Your task to perform on an android device: install app "AliExpress" Image 0: 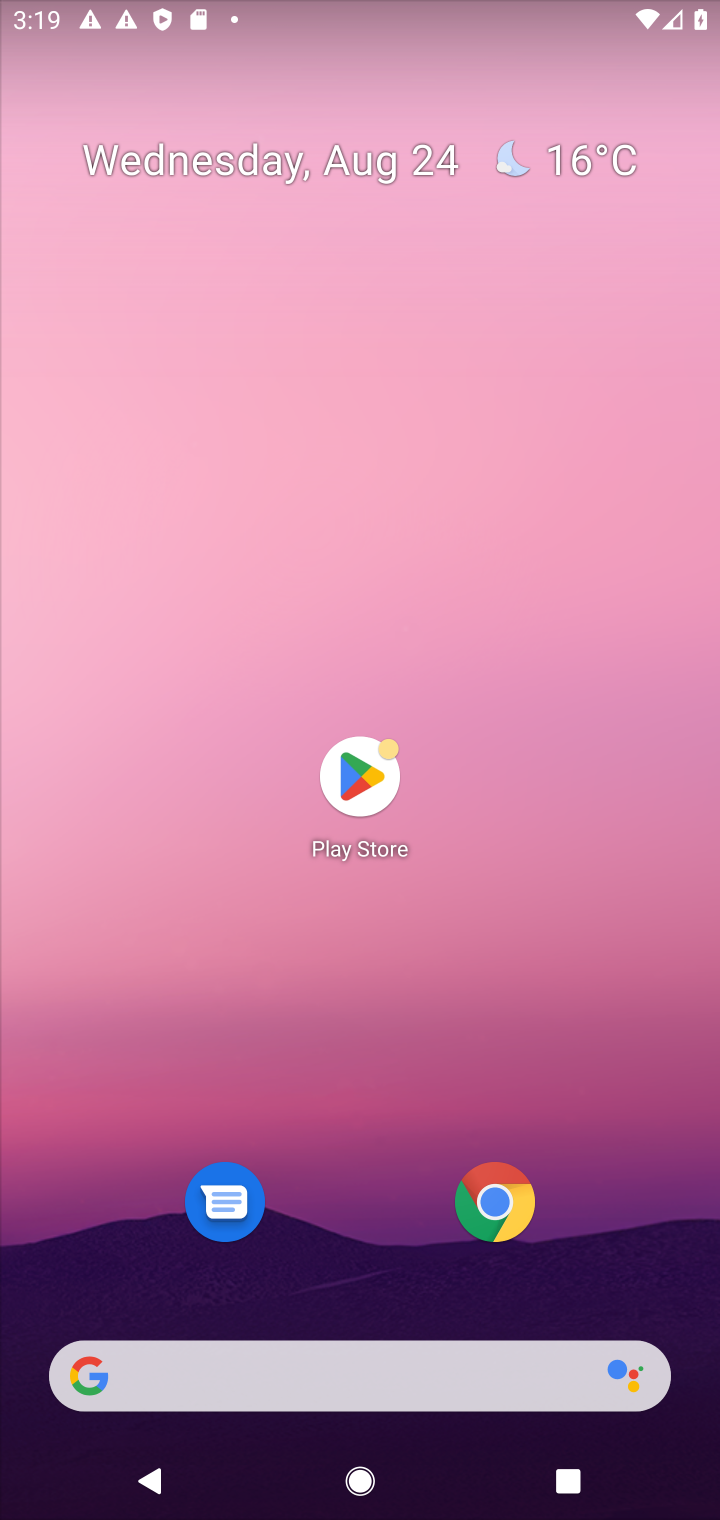
Step 0: click (363, 772)
Your task to perform on an android device: install app "AliExpress" Image 1: 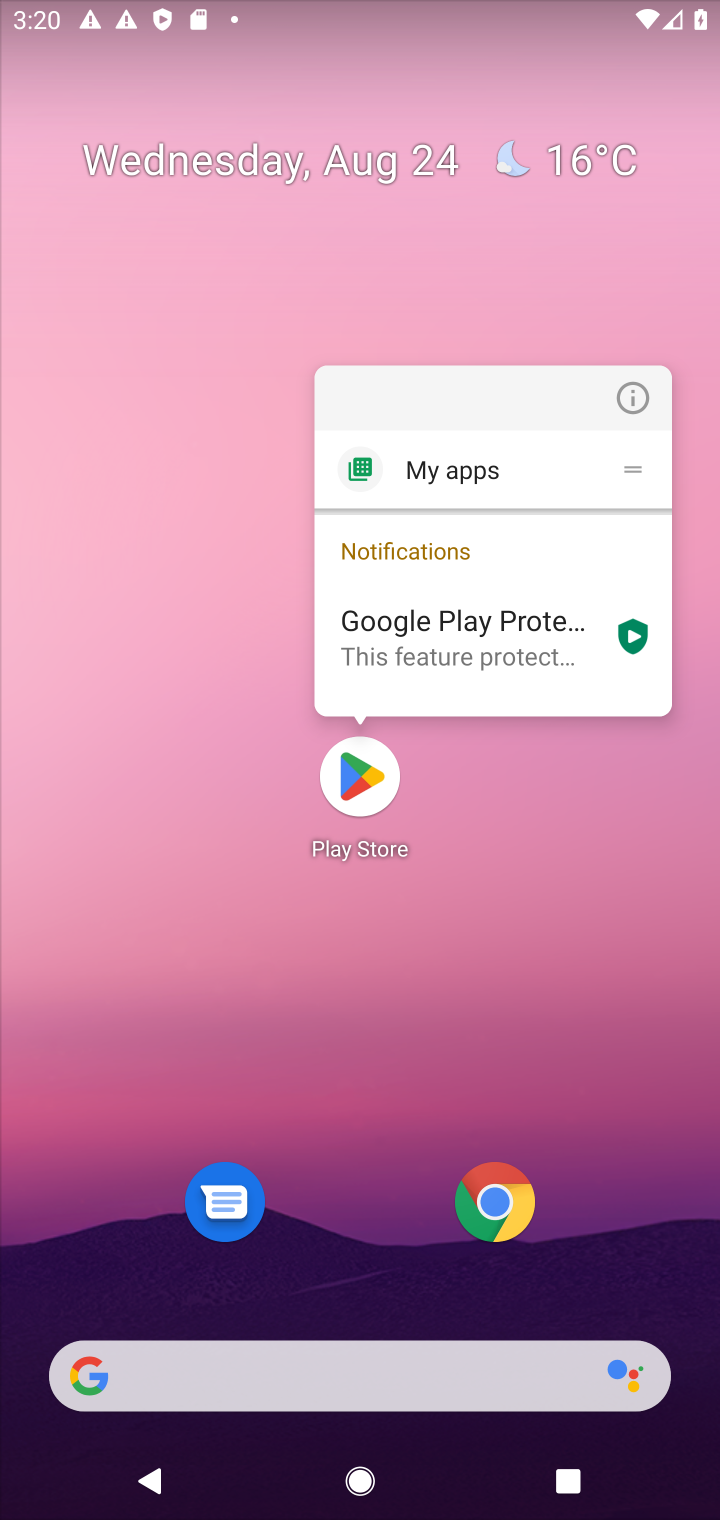
Step 1: click (362, 766)
Your task to perform on an android device: install app "AliExpress" Image 2: 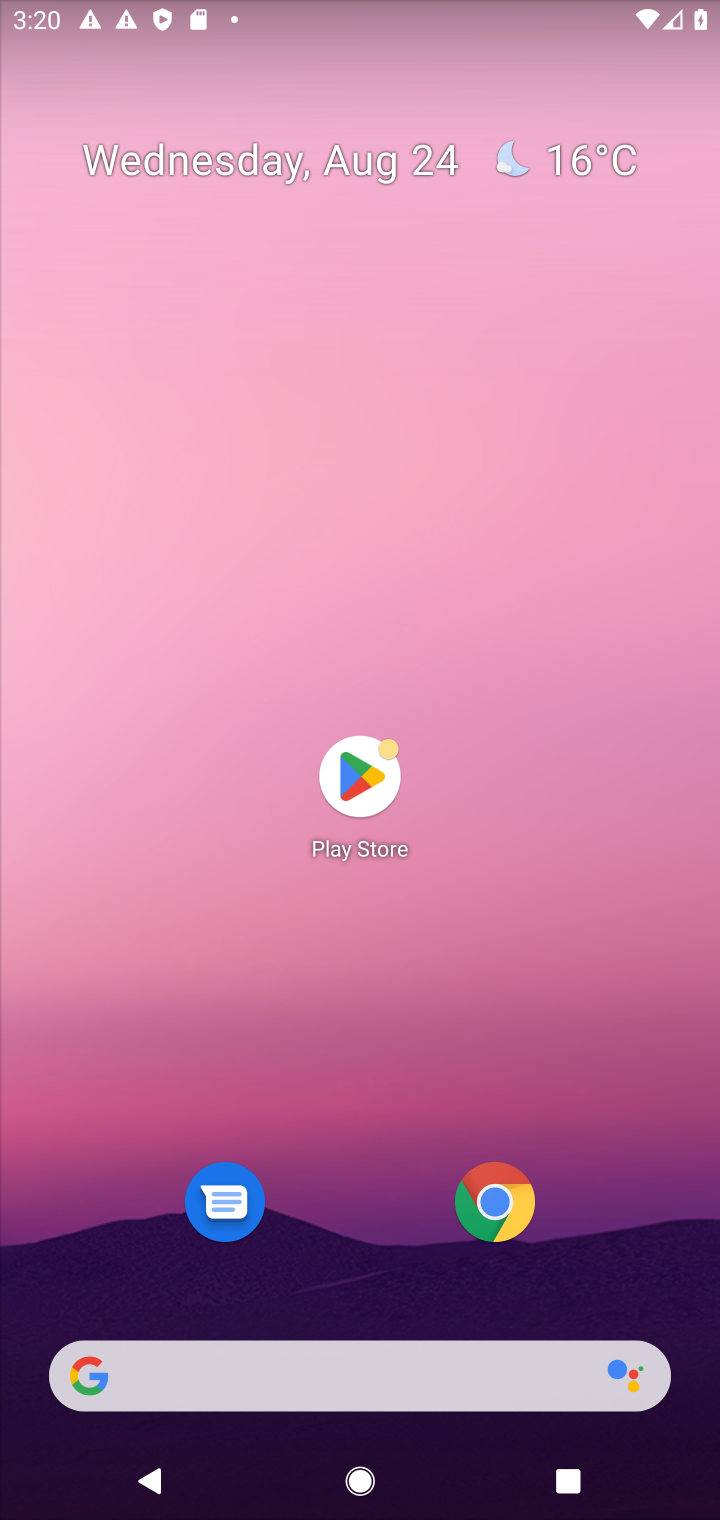
Step 2: click (362, 769)
Your task to perform on an android device: install app "AliExpress" Image 3: 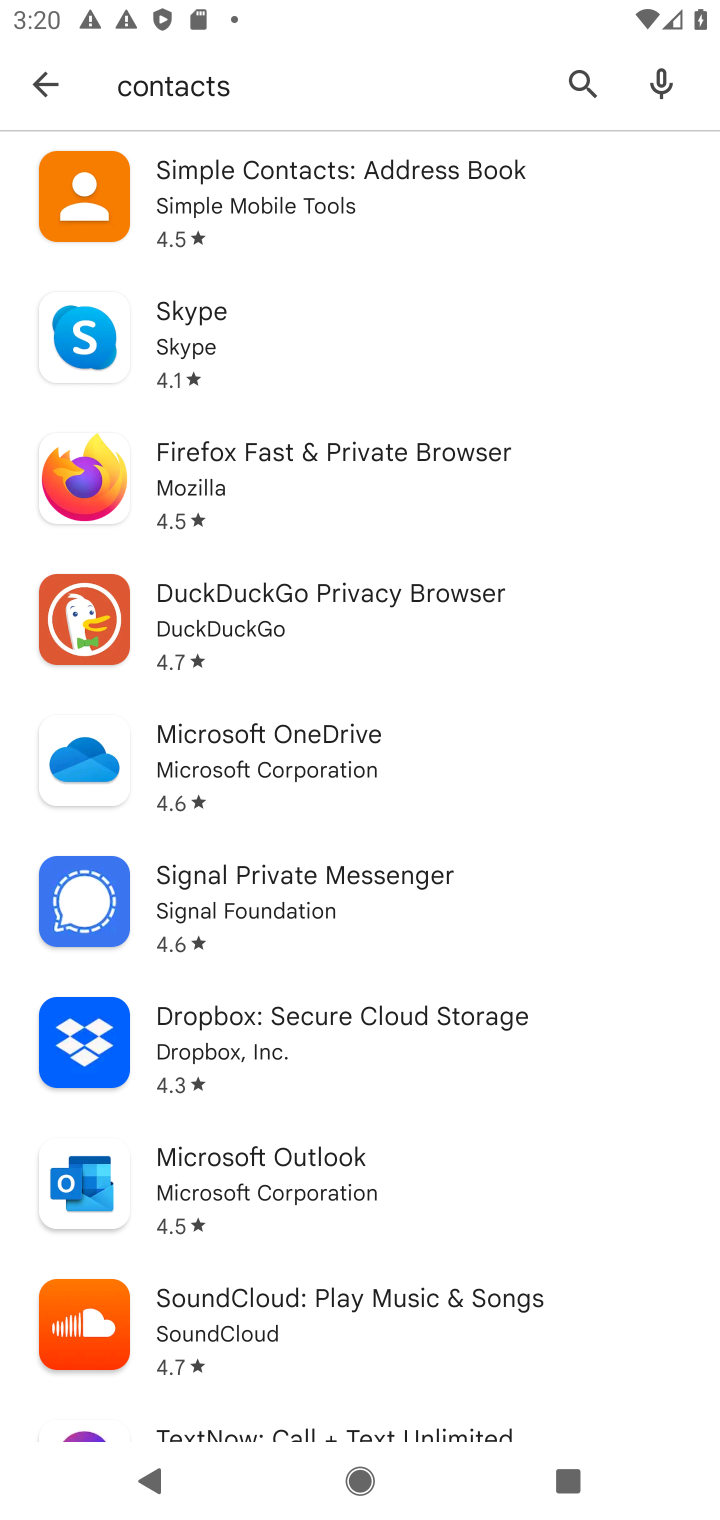
Step 3: click (585, 77)
Your task to perform on an android device: install app "AliExpress" Image 4: 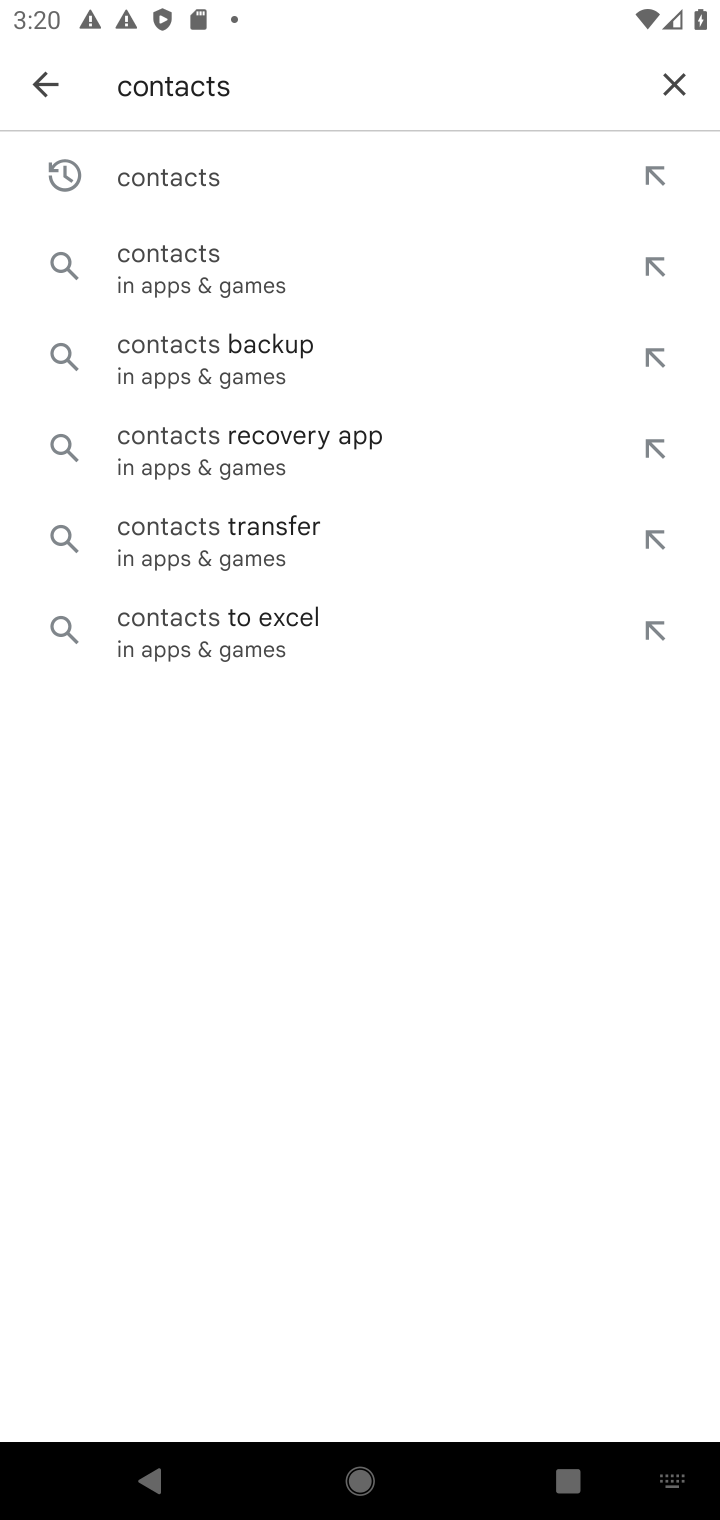
Step 4: click (664, 79)
Your task to perform on an android device: install app "AliExpress" Image 5: 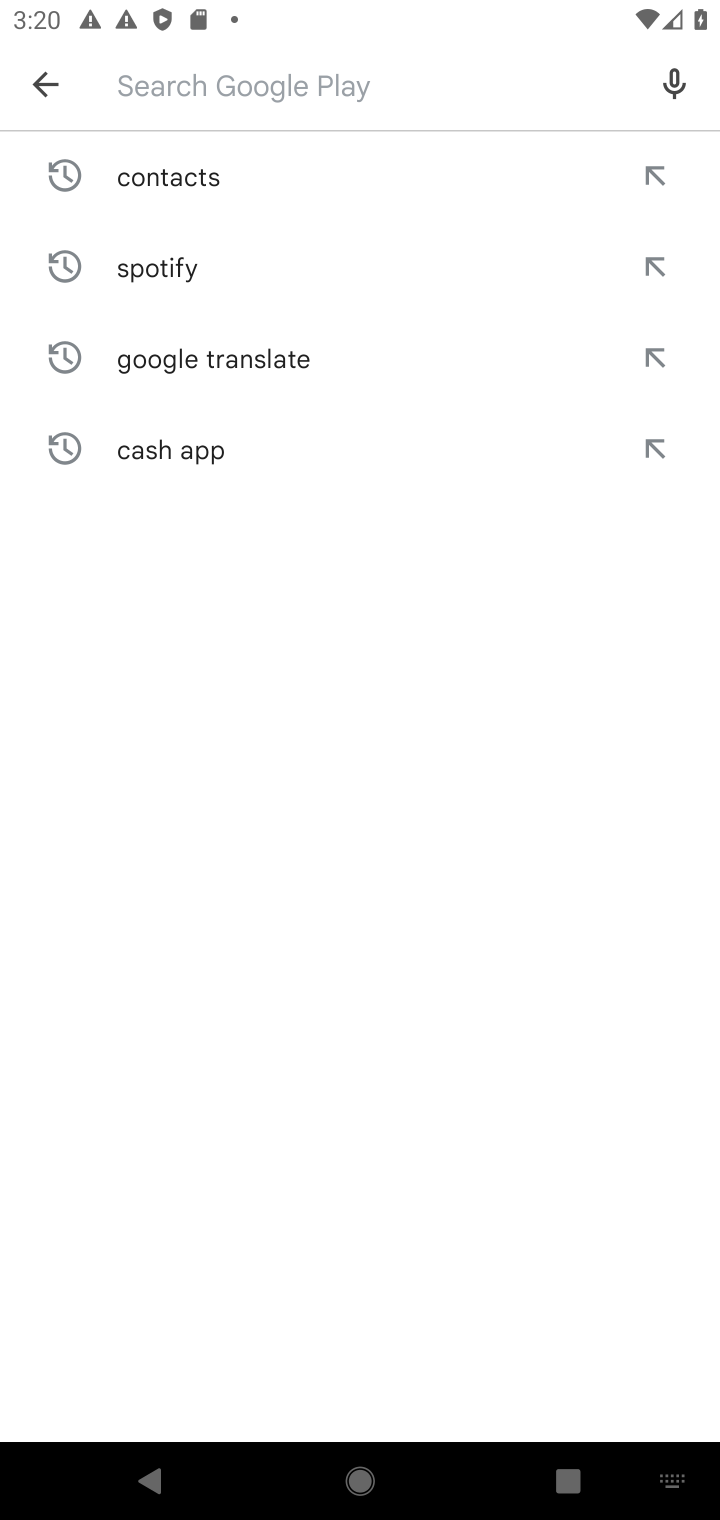
Step 5: type "AliExpress"
Your task to perform on an android device: install app "AliExpress" Image 6: 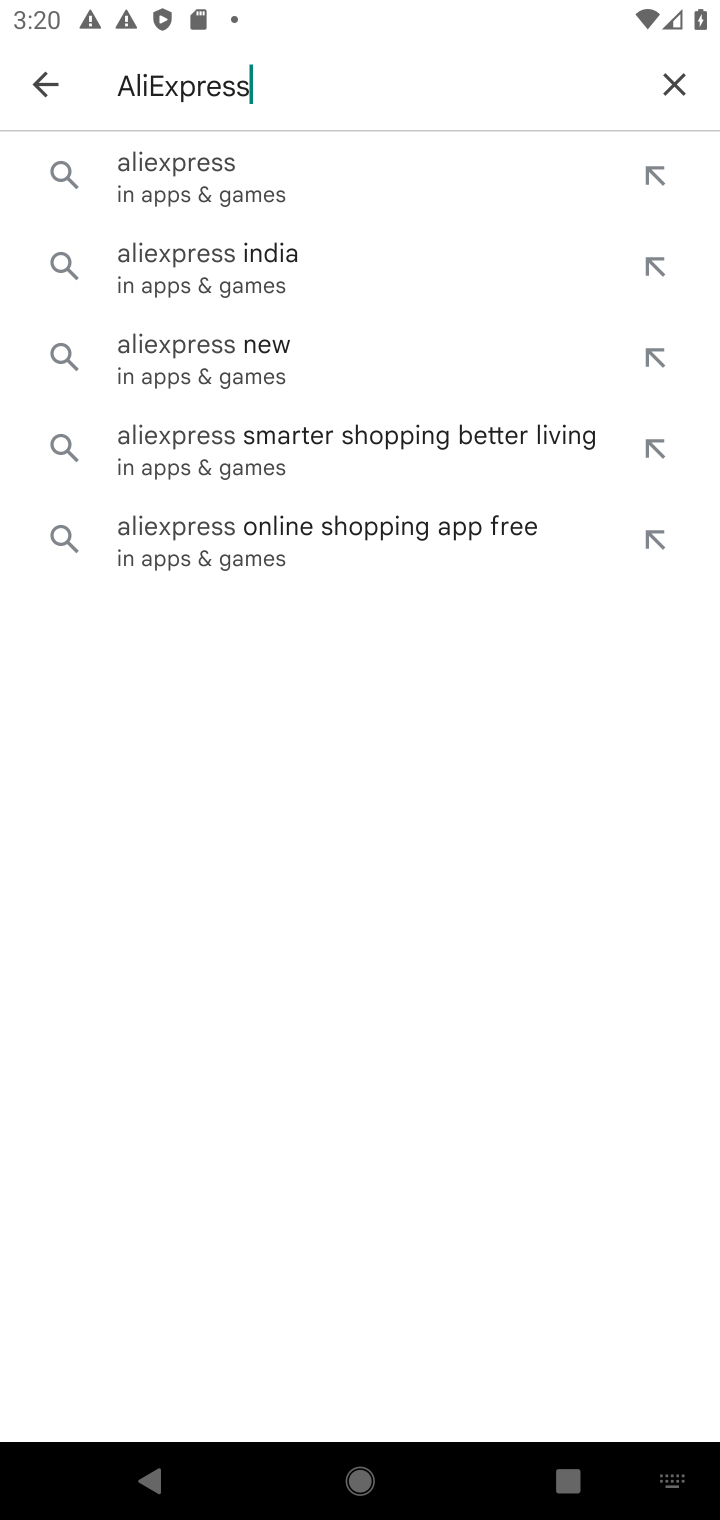
Step 6: click (198, 171)
Your task to perform on an android device: install app "AliExpress" Image 7: 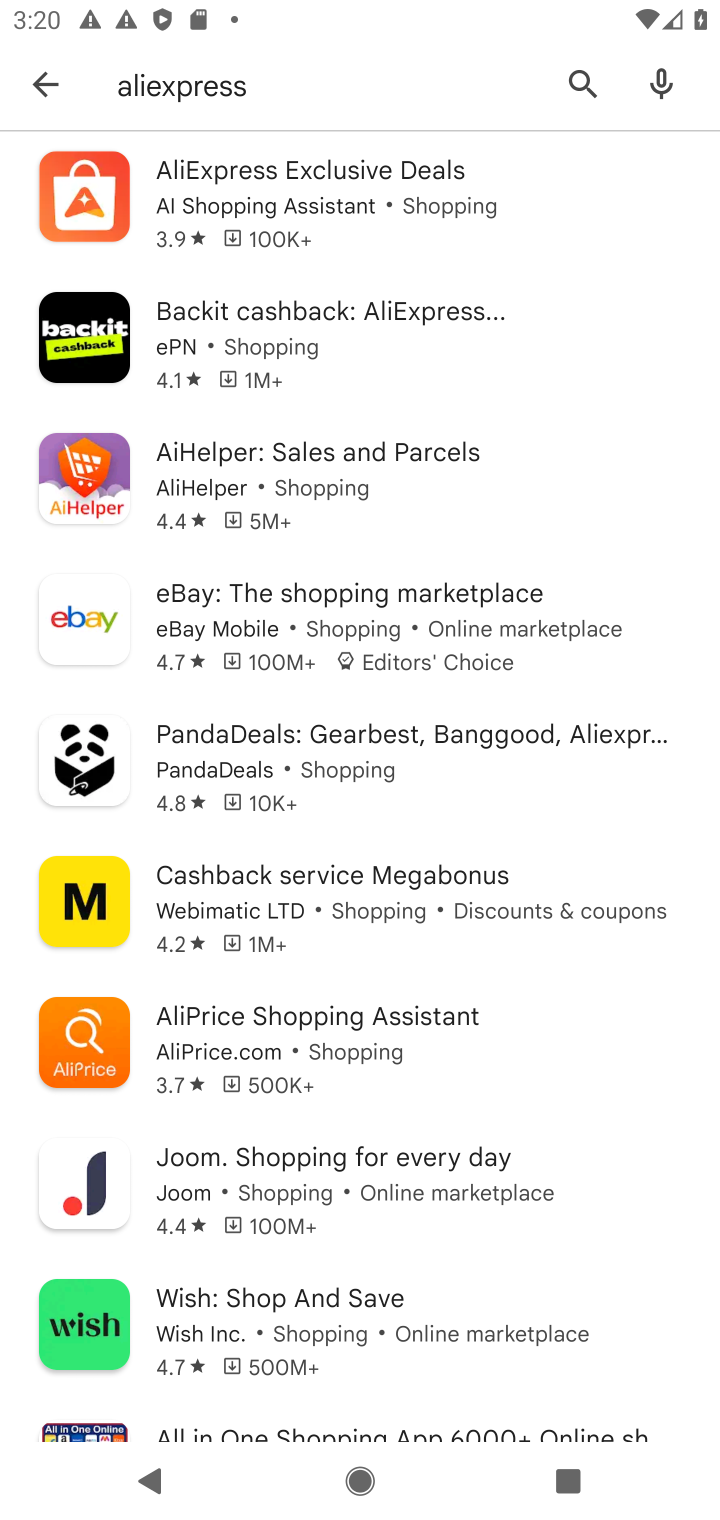
Step 7: click (355, 204)
Your task to perform on an android device: install app "AliExpress" Image 8: 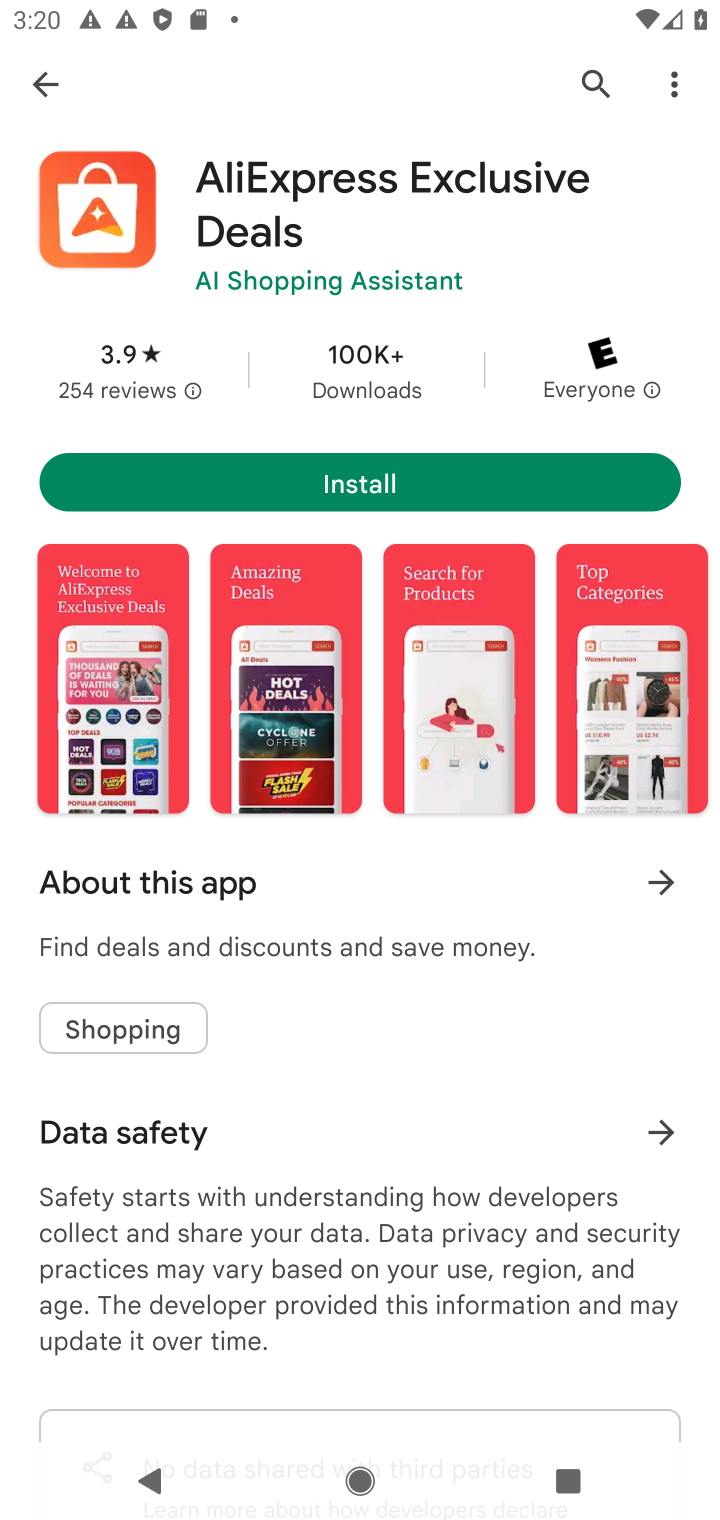
Step 8: click (351, 487)
Your task to perform on an android device: install app "AliExpress" Image 9: 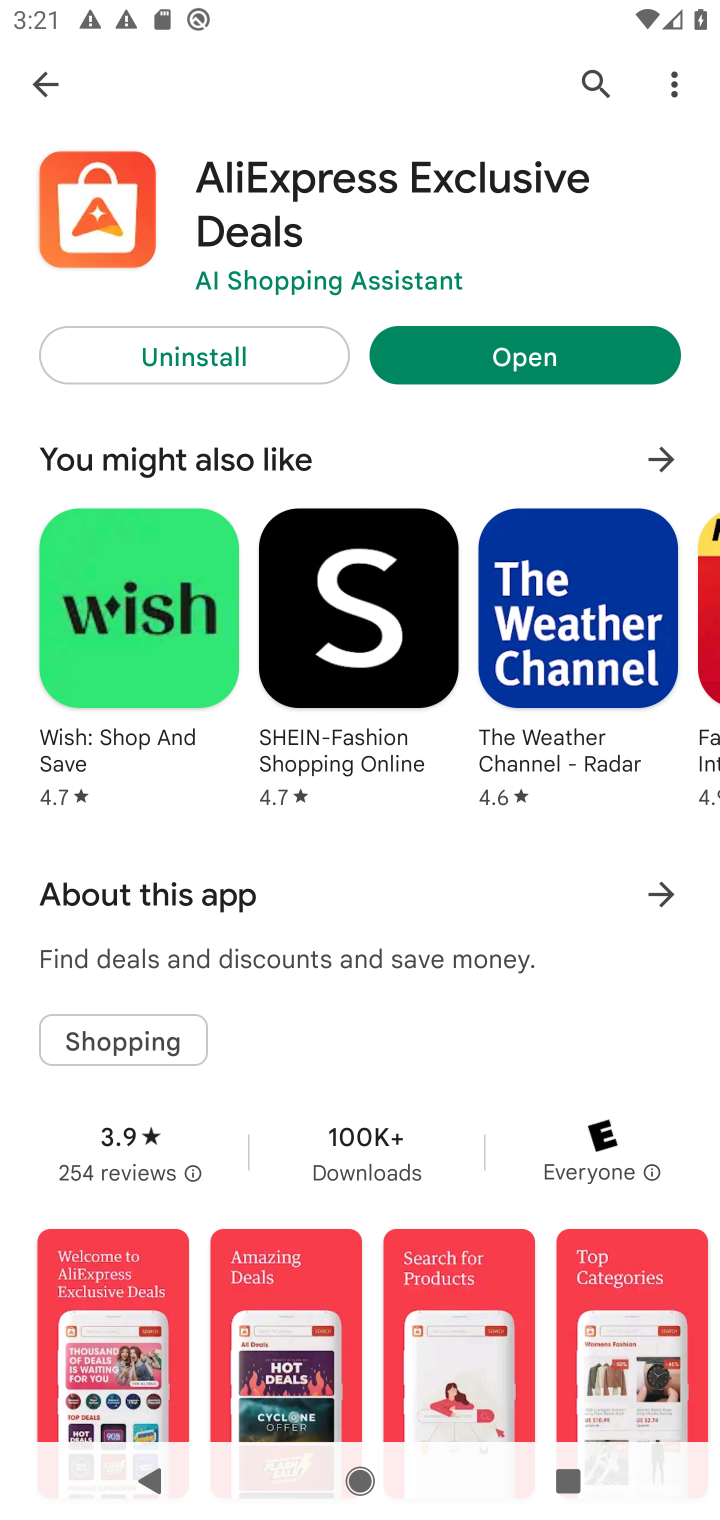
Step 9: task complete